Your task to perform on an android device: What's the weather? Image 0: 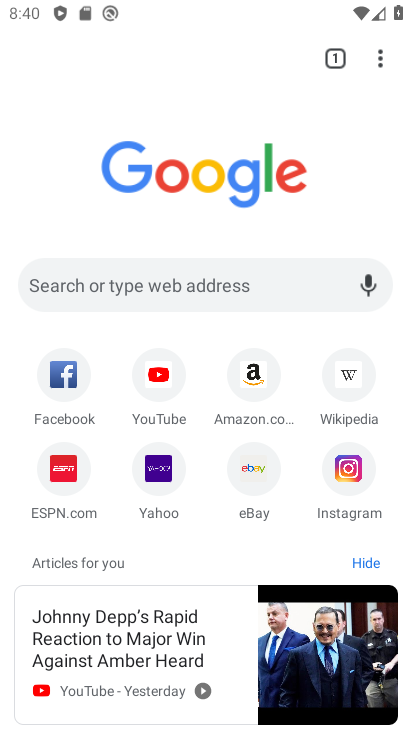
Step 0: click (264, 283)
Your task to perform on an android device: What's the weather? Image 1: 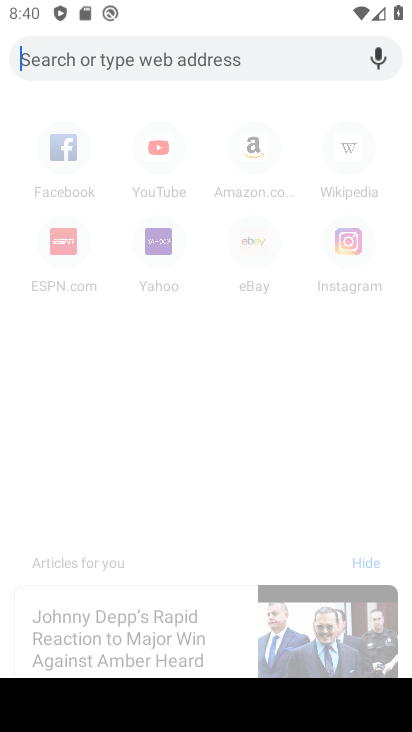
Step 1: type "What's the weather?"
Your task to perform on an android device: What's the weather? Image 2: 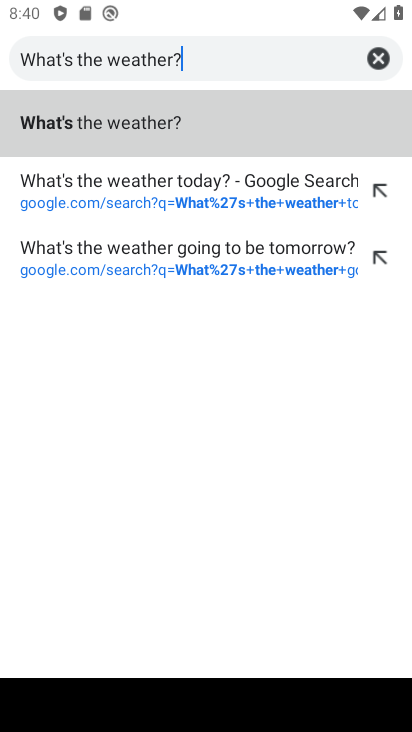
Step 2: click (83, 120)
Your task to perform on an android device: What's the weather? Image 3: 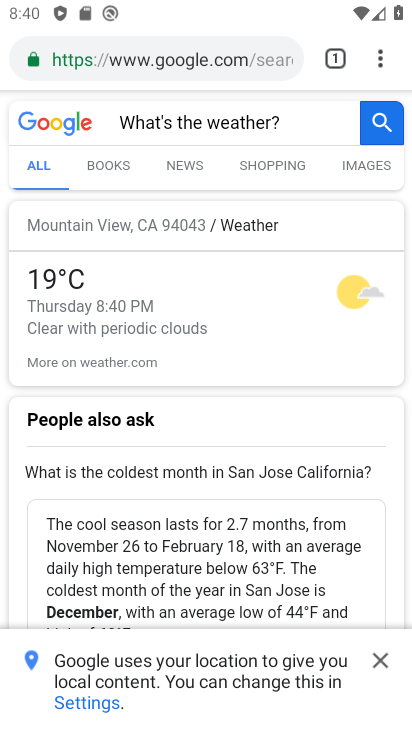
Step 3: task complete